Your task to perform on an android device: find photos in the google photos app Image 0: 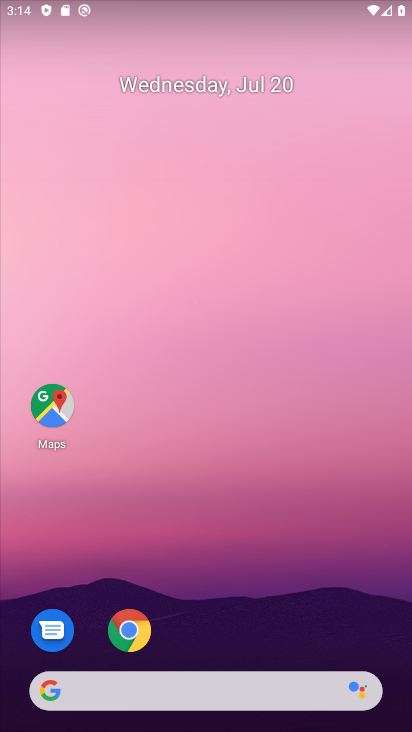
Step 0: press home button
Your task to perform on an android device: find photos in the google photos app Image 1: 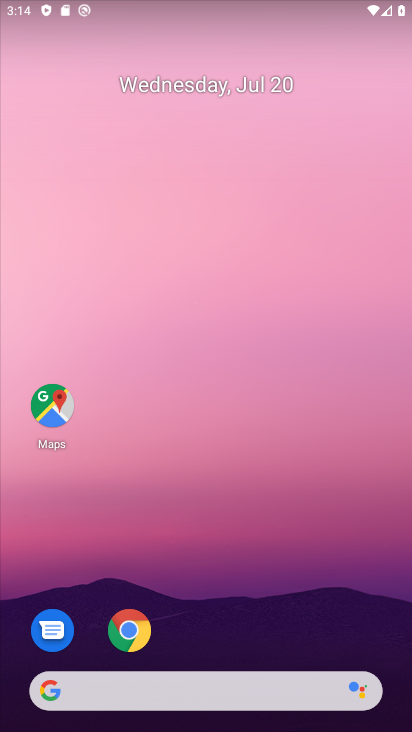
Step 1: drag from (256, 636) to (234, 7)
Your task to perform on an android device: find photos in the google photos app Image 2: 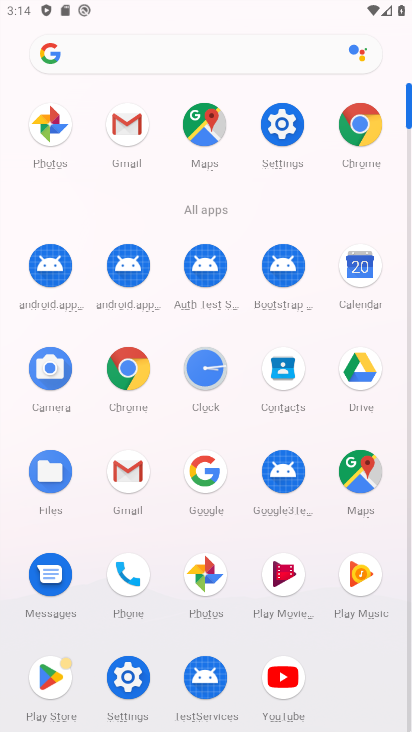
Step 2: click (50, 137)
Your task to perform on an android device: find photos in the google photos app Image 3: 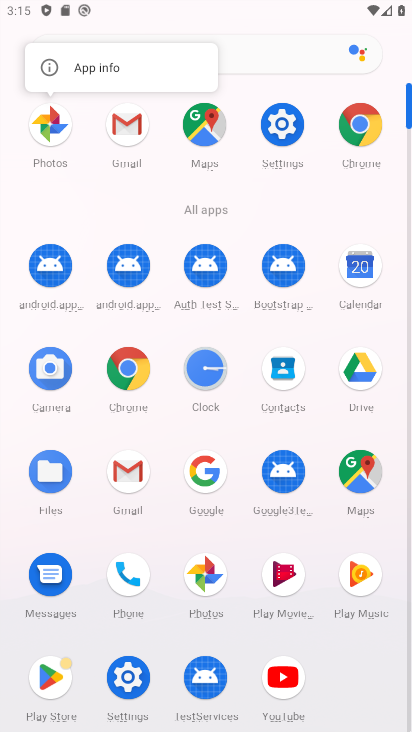
Step 3: click (50, 137)
Your task to perform on an android device: find photos in the google photos app Image 4: 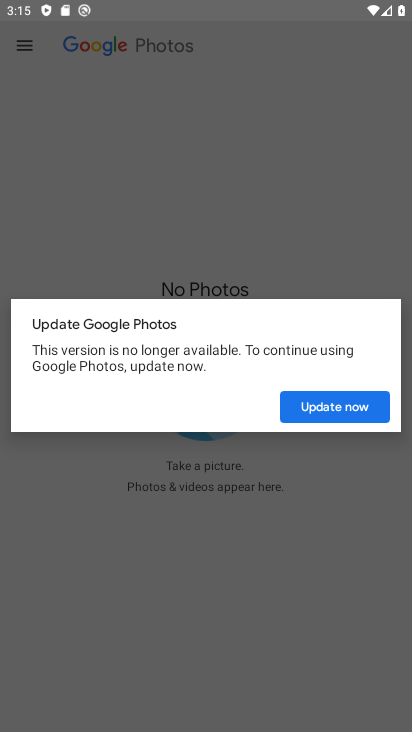
Step 4: click (332, 405)
Your task to perform on an android device: find photos in the google photos app Image 5: 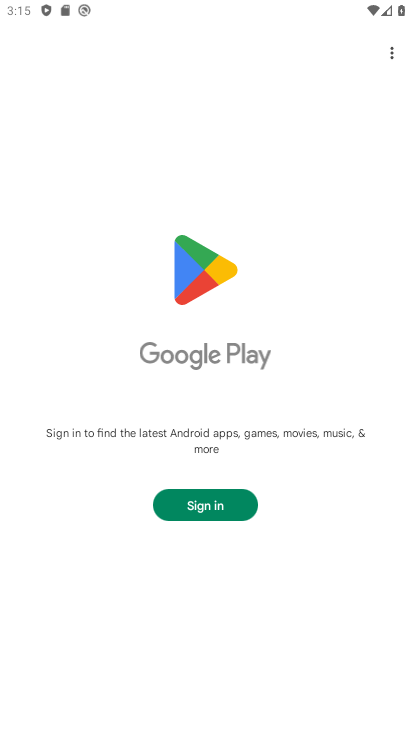
Step 5: click (187, 506)
Your task to perform on an android device: find photos in the google photos app Image 6: 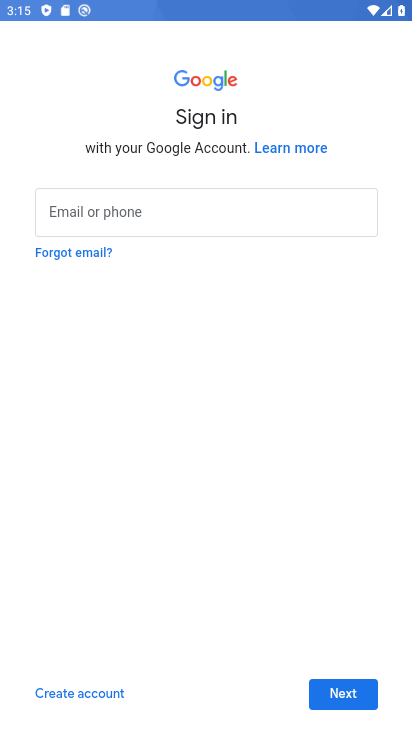
Step 6: task complete